Your task to perform on an android device: Search for the best books of all time on Goodreads Image 0: 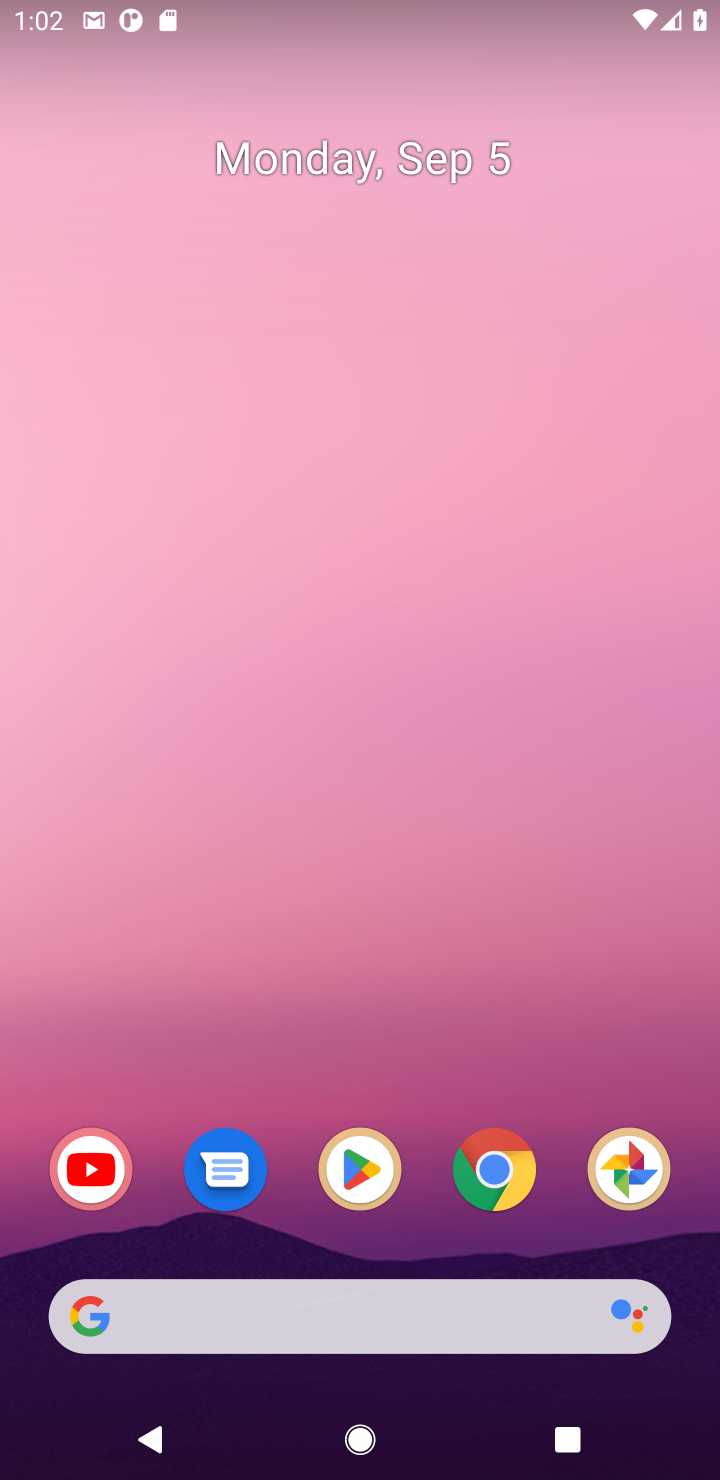
Step 0: click (471, 1149)
Your task to perform on an android device: Search for the best books of all time on Goodreads Image 1: 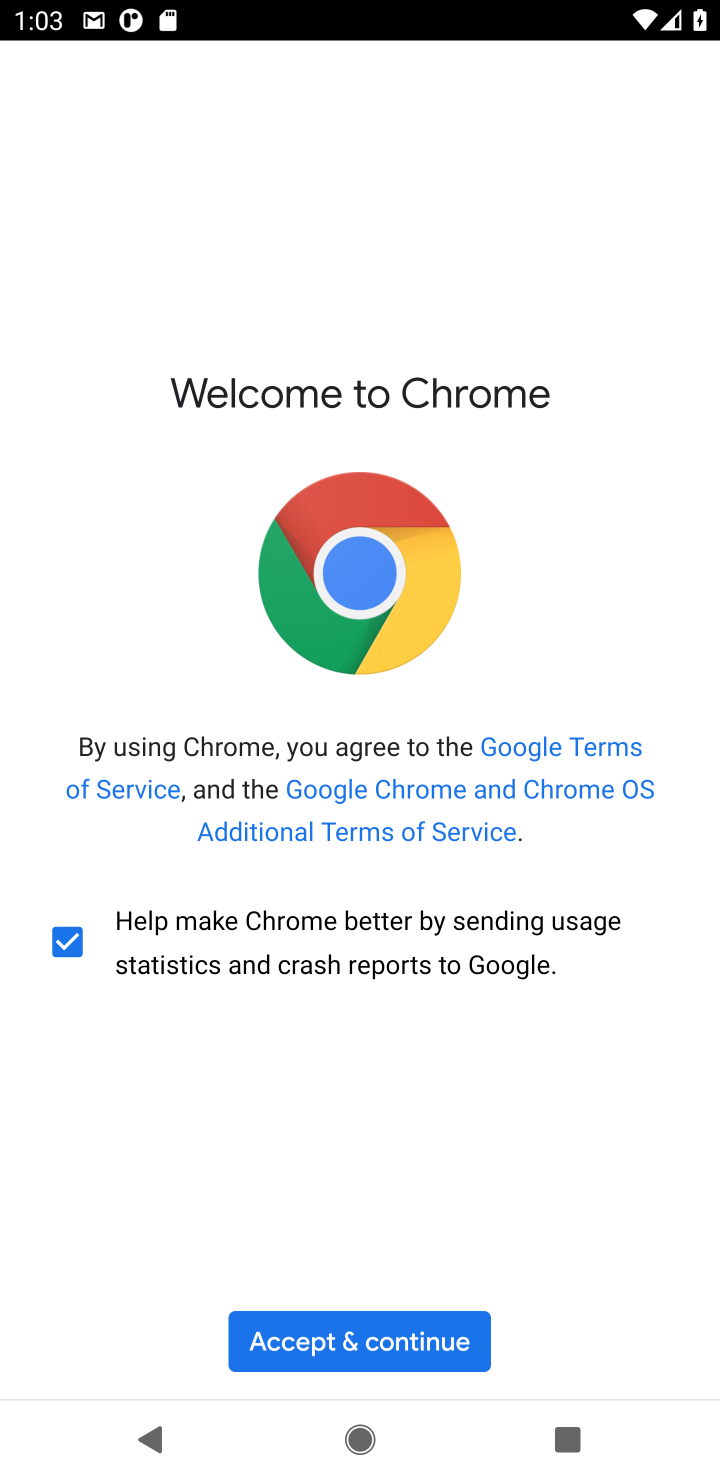
Step 1: click (343, 1344)
Your task to perform on an android device: Search for the best books of all time on Goodreads Image 2: 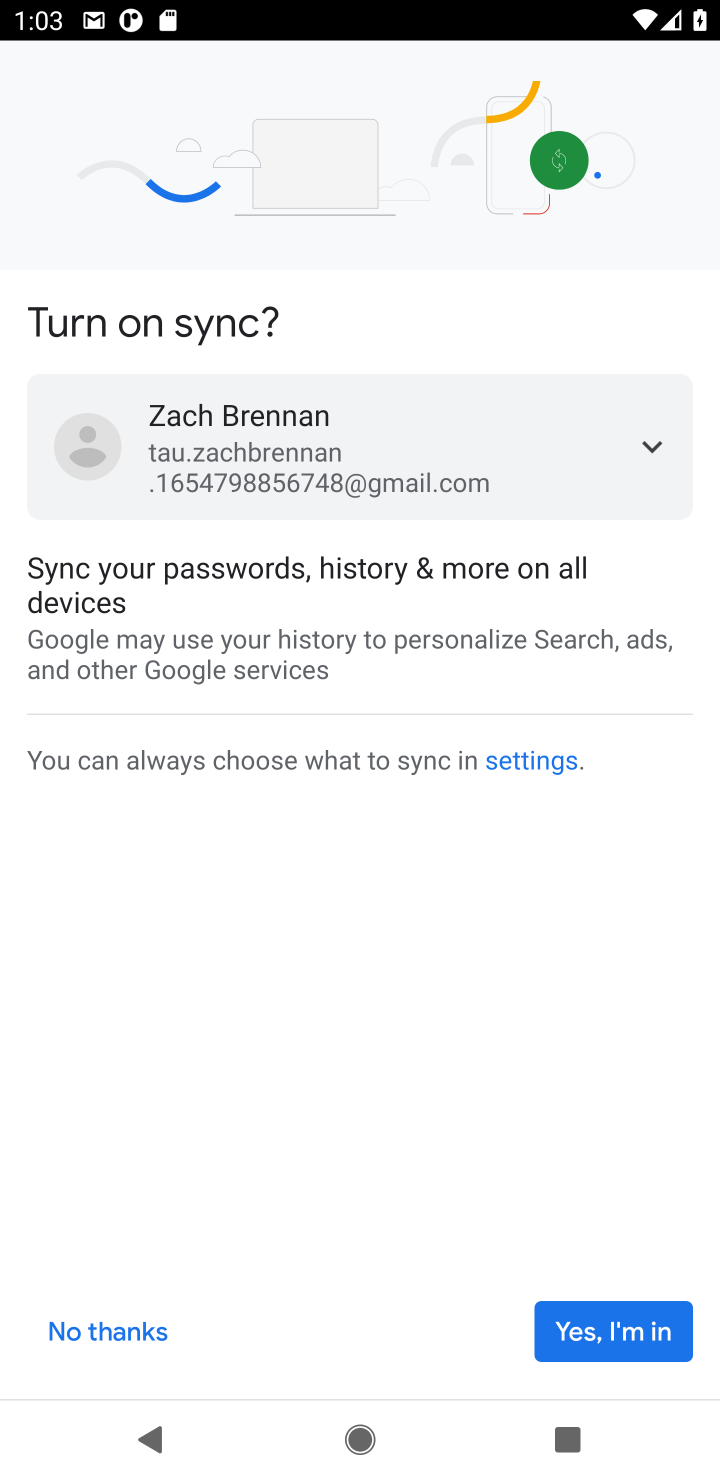
Step 2: click (557, 1335)
Your task to perform on an android device: Search for the best books of all time on Goodreads Image 3: 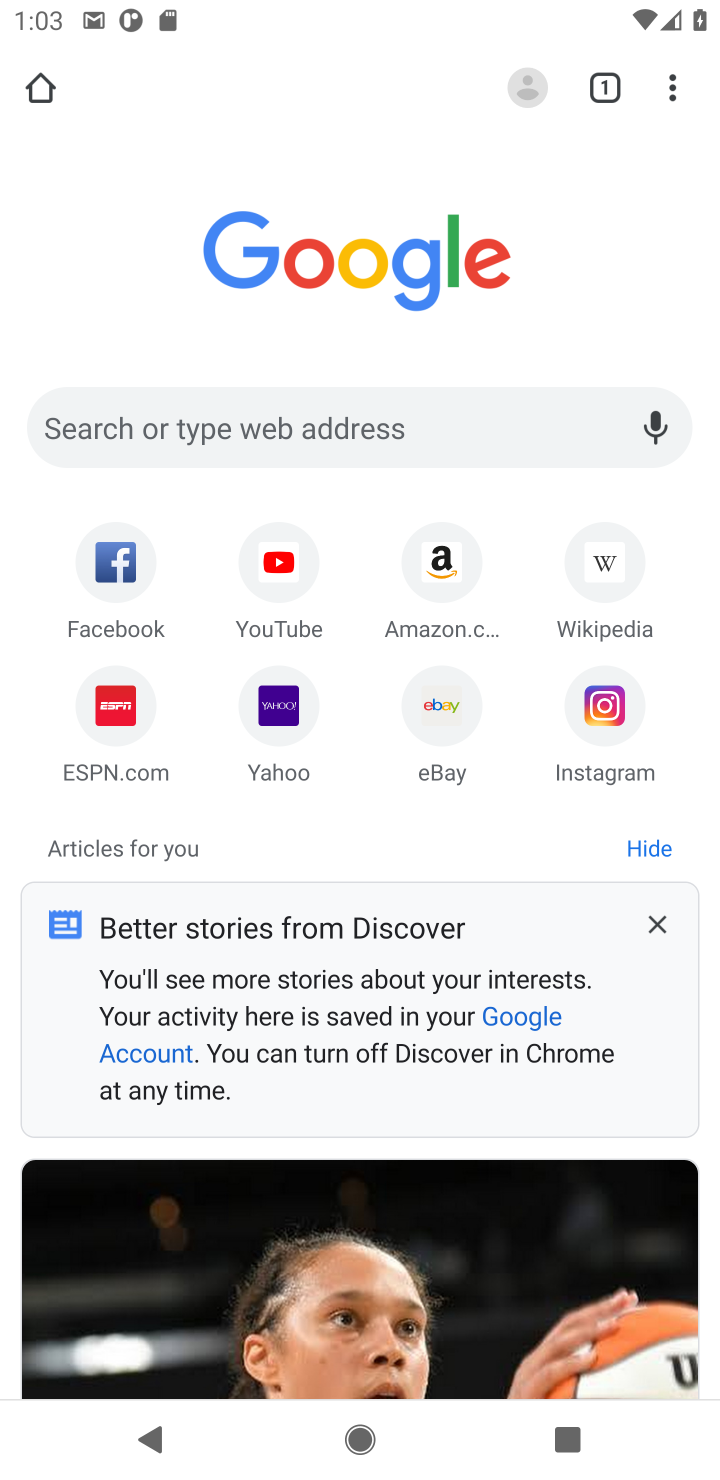
Step 3: click (224, 771)
Your task to perform on an android device: Search for the best books of all time on Goodreads Image 4: 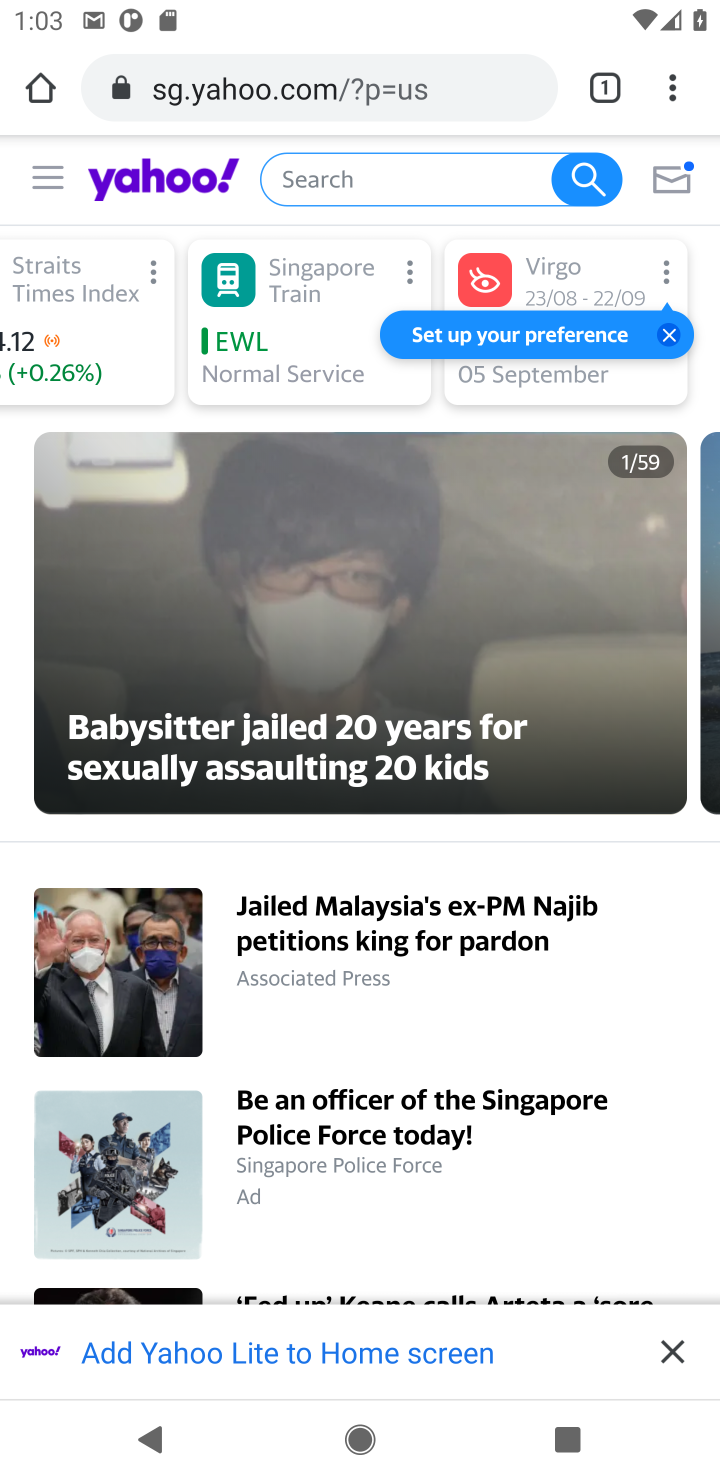
Step 4: click (317, 972)
Your task to perform on an android device: Search for the best books of all time on Goodreads Image 5: 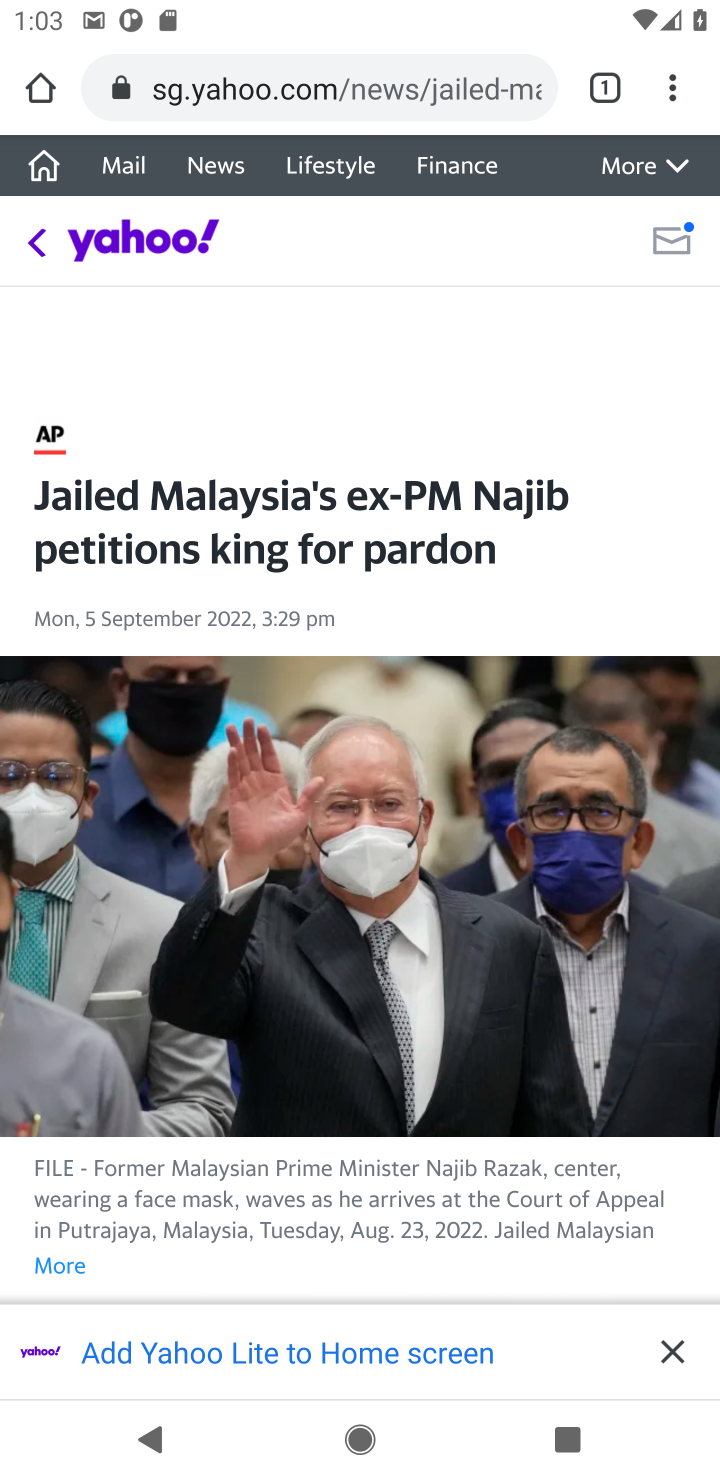
Step 5: task complete